Your task to perform on an android device: What is the recent news? Image 0: 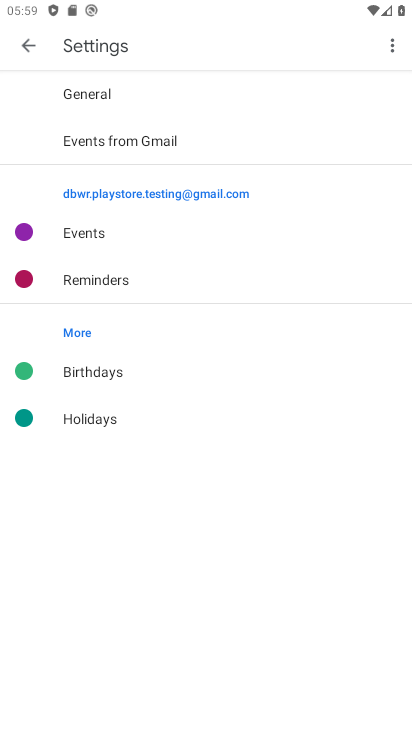
Step 0: press home button
Your task to perform on an android device: What is the recent news? Image 1: 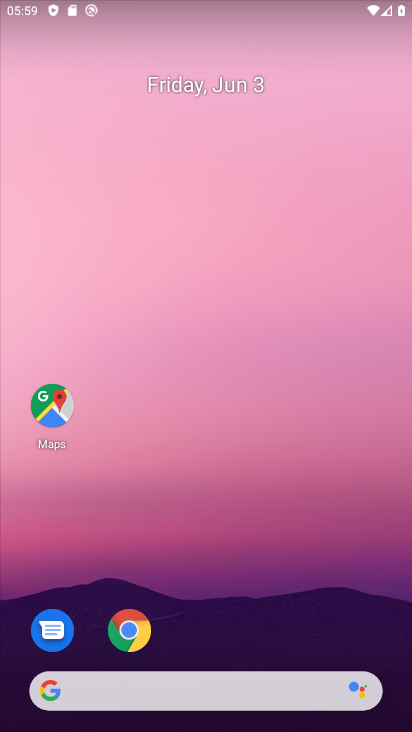
Step 1: click (324, 703)
Your task to perform on an android device: What is the recent news? Image 2: 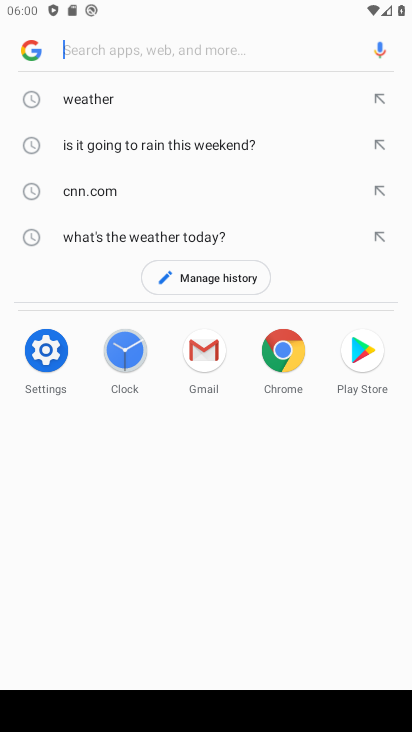
Step 2: click (31, 42)
Your task to perform on an android device: What is the recent news? Image 3: 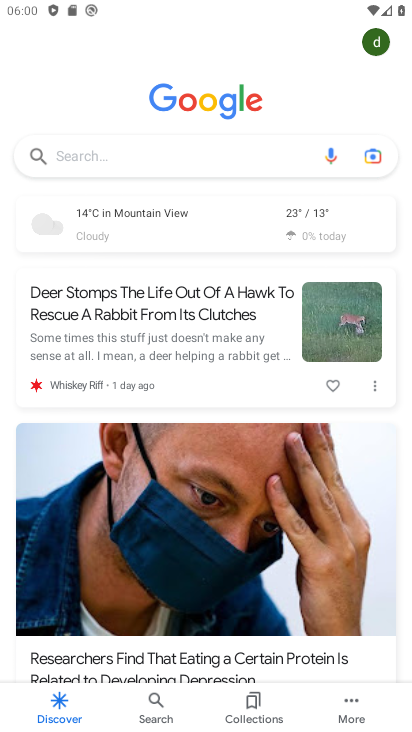
Step 3: task complete